Your task to perform on an android device: Go to display settings Image 0: 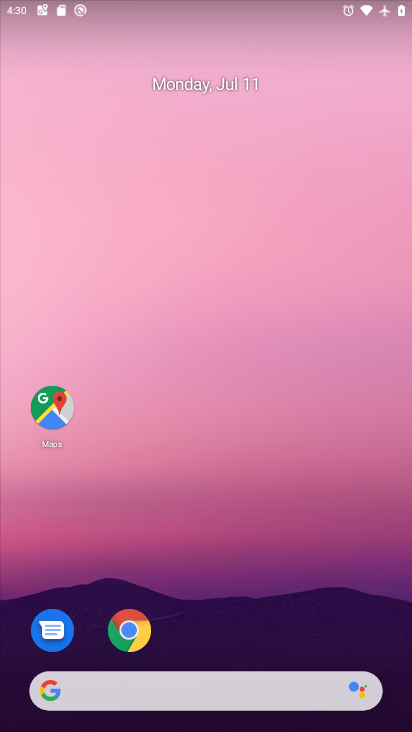
Step 0: drag from (286, 631) to (209, 54)
Your task to perform on an android device: Go to display settings Image 1: 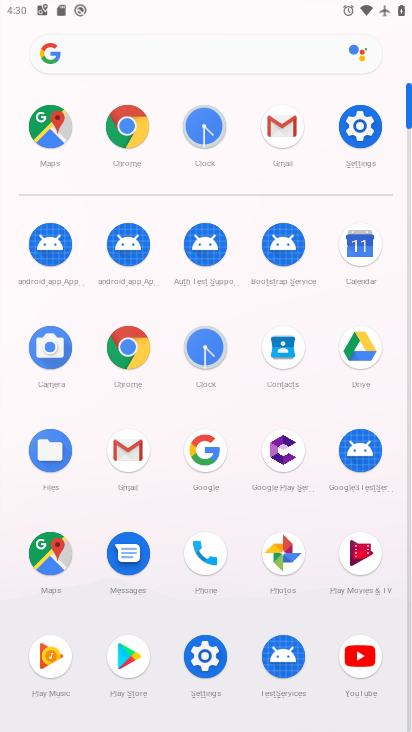
Step 1: click (348, 132)
Your task to perform on an android device: Go to display settings Image 2: 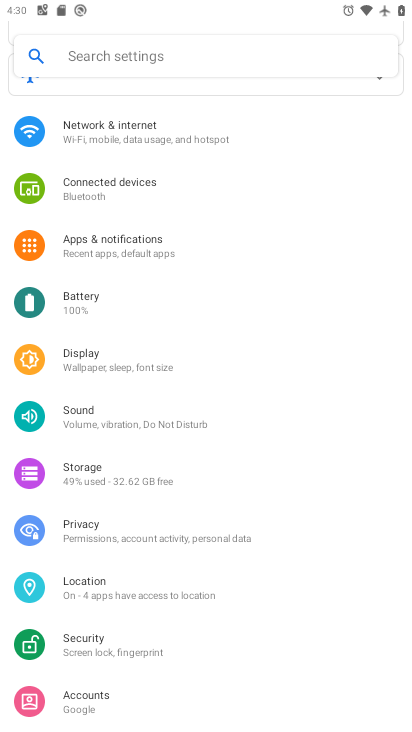
Step 2: click (161, 361)
Your task to perform on an android device: Go to display settings Image 3: 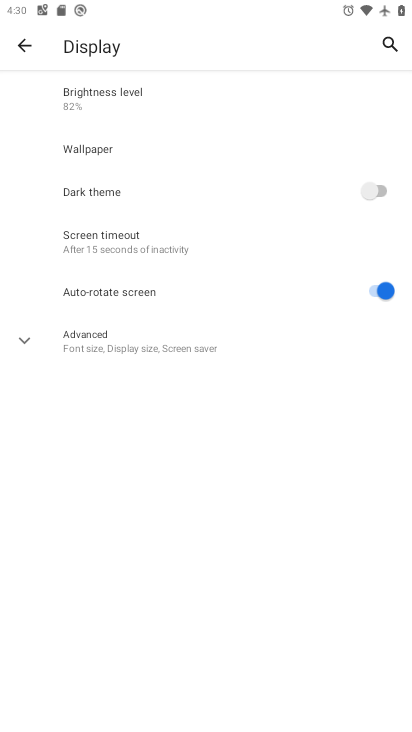
Step 3: task complete